Your task to perform on an android device: Open settings Image 0: 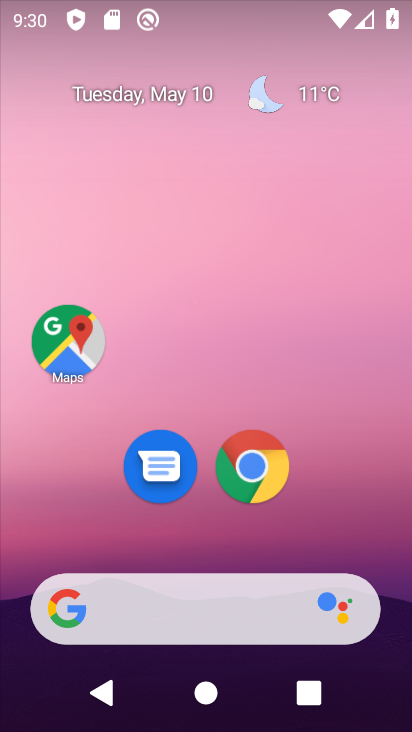
Step 0: drag from (357, 309) to (411, 67)
Your task to perform on an android device: Open settings Image 1: 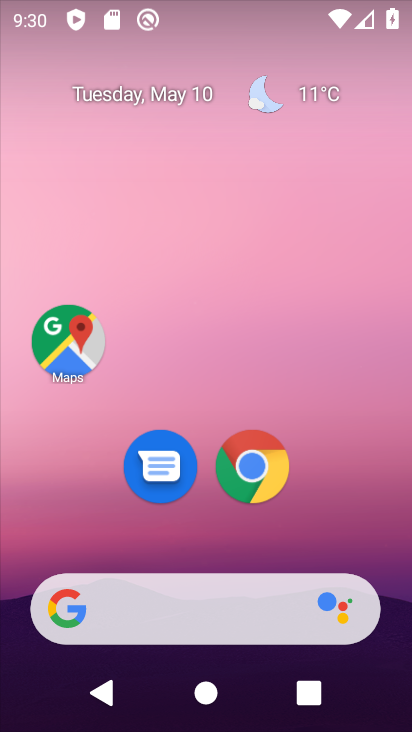
Step 1: drag from (284, 470) to (253, 89)
Your task to perform on an android device: Open settings Image 2: 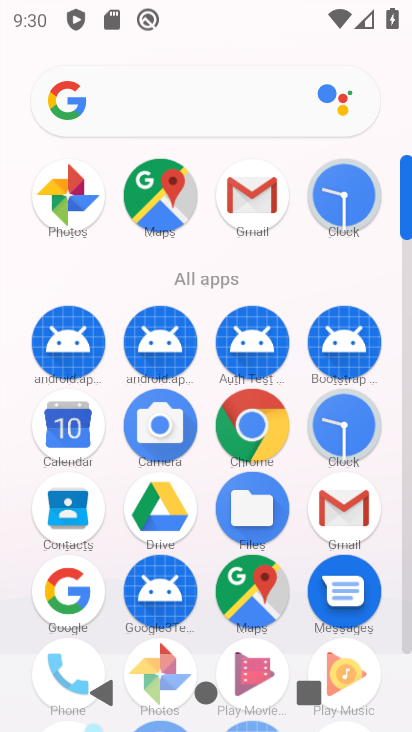
Step 2: drag from (302, 603) to (293, 176)
Your task to perform on an android device: Open settings Image 3: 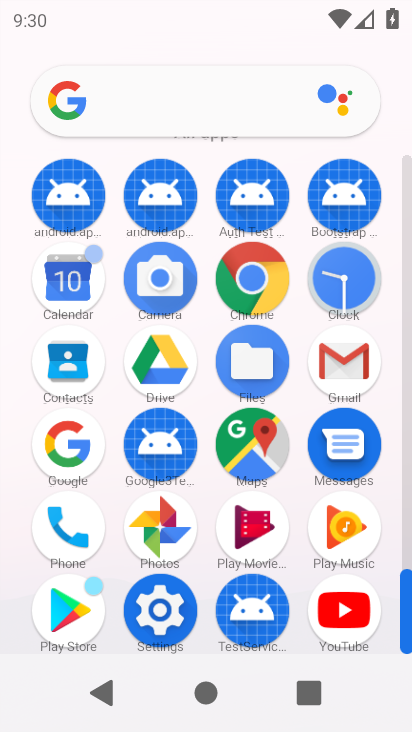
Step 3: click (170, 618)
Your task to perform on an android device: Open settings Image 4: 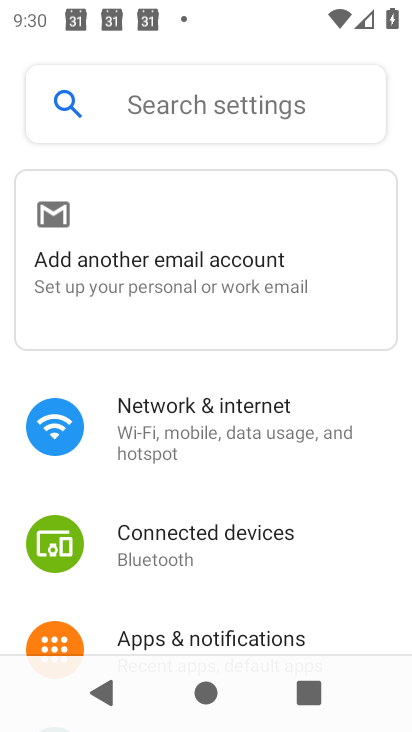
Step 4: task complete